Your task to perform on an android device: Search for vegetarian restaurants on Maps Image 0: 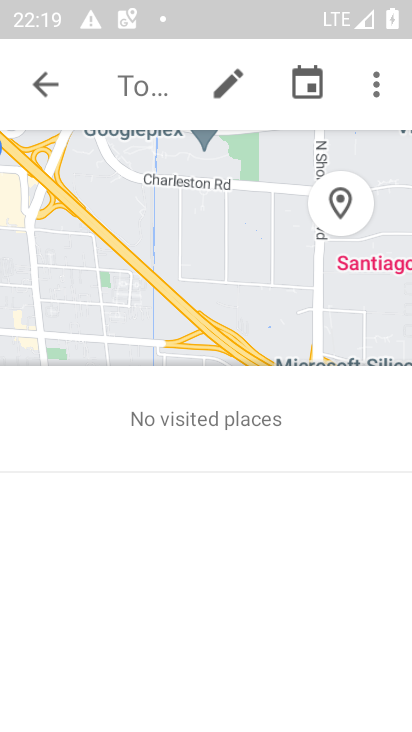
Step 0: press home button
Your task to perform on an android device: Search for vegetarian restaurants on Maps Image 1: 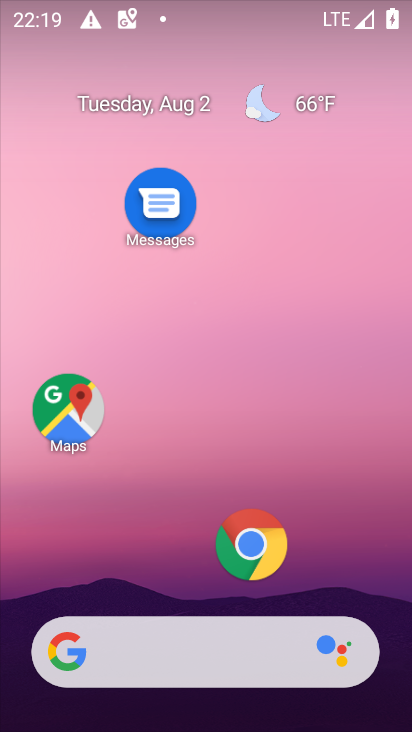
Step 1: click (70, 407)
Your task to perform on an android device: Search for vegetarian restaurants on Maps Image 2: 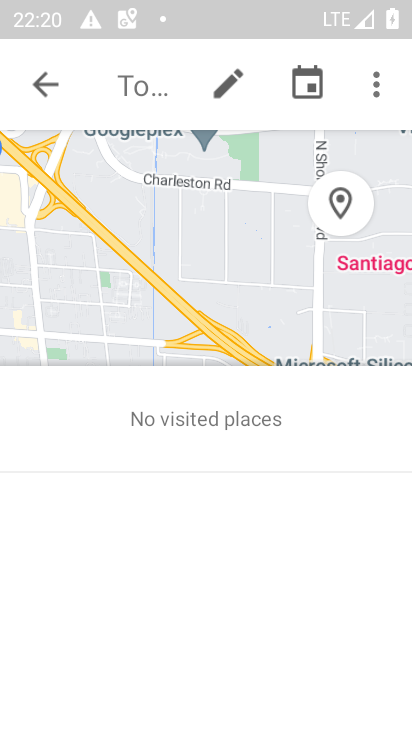
Step 2: click (43, 78)
Your task to perform on an android device: Search for vegetarian restaurants on Maps Image 3: 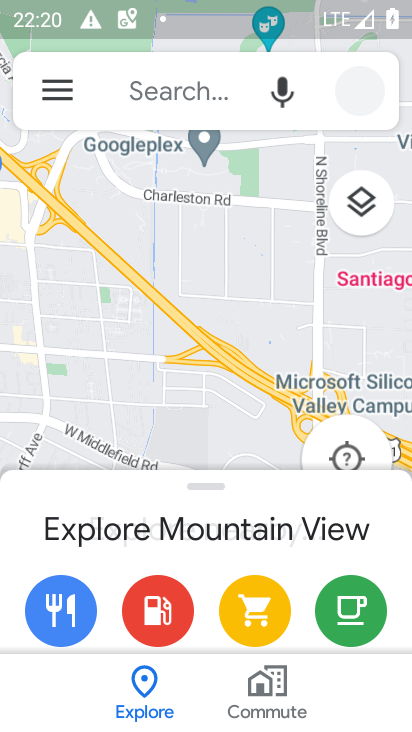
Step 3: click (221, 89)
Your task to perform on an android device: Search for vegetarian restaurants on Maps Image 4: 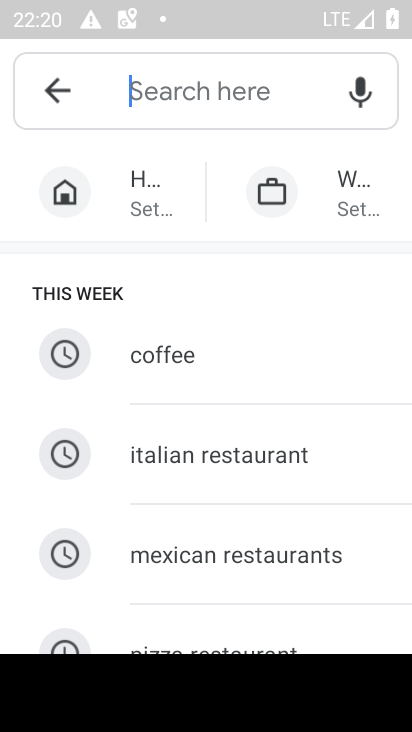
Step 4: drag from (226, 561) to (230, 367)
Your task to perform on an android device: Search for vegetarian restaurants on Maps Image 5: 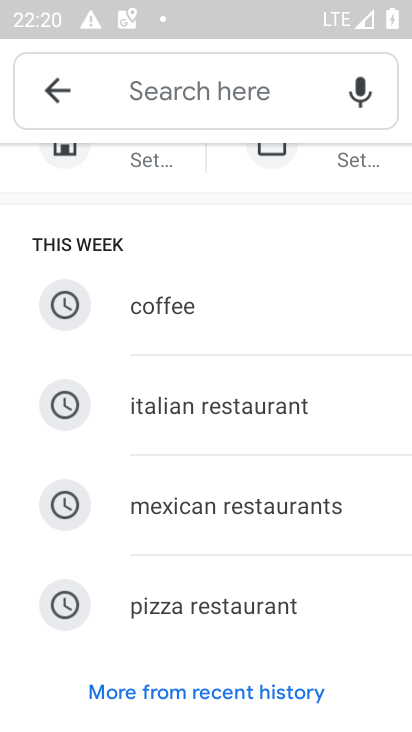
Step 5: click (165, 112)
Your task to perform on an android device: Search for vegetarian restaurants on Maps Image 6: 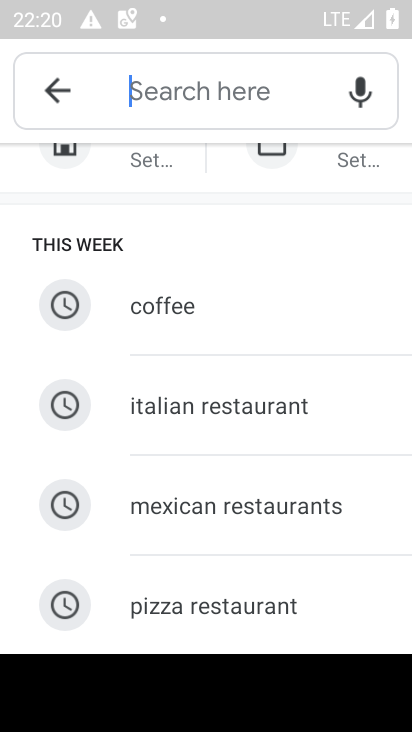
Step 6: type "vegetarian restaurants"
Your task to perform on an android device: Search for vegetarian restaurants on Maps Image 7: 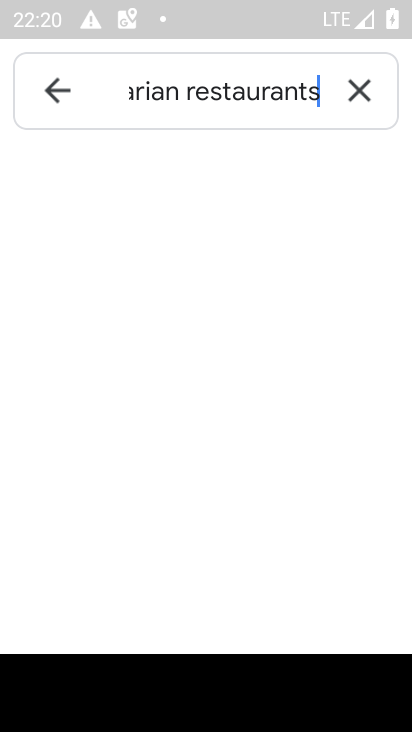
Step 7: type ""
Your task to perform on an android device: Search for vegetarian restaurants on Maps Image 8: 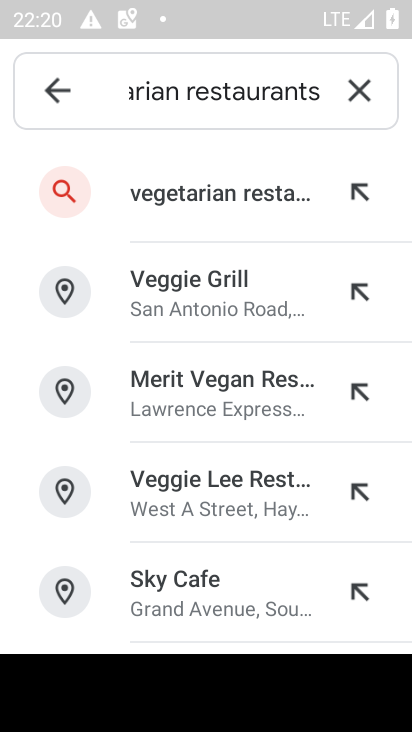
Step 8: click (212, 193)
Your task to perform on an android device: Search for vegetarian restaurants on Maps Image 9: 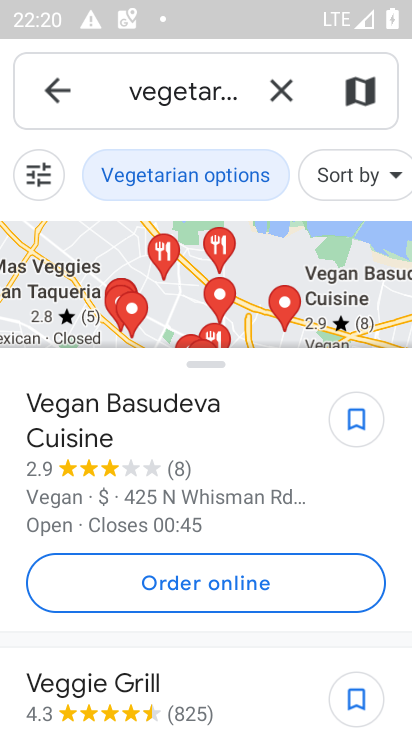
Step 9: task complete